Your task to perform on an android device: check battery use Image 0: 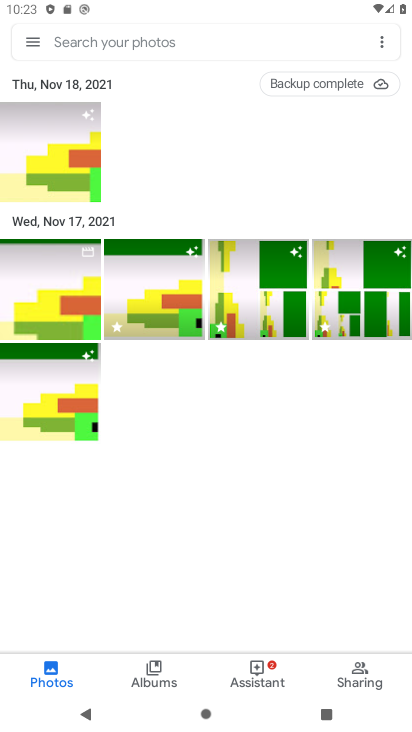
Step 0: press home button
Your task to perform on an android device: check battery use Image 1: 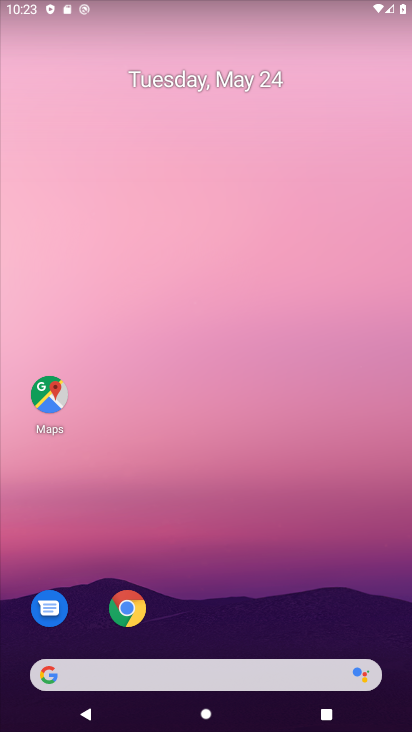
Step 1: drag from (382, 633) to (334, 42)
Your task to perform on an android device: check battery use Image 2: 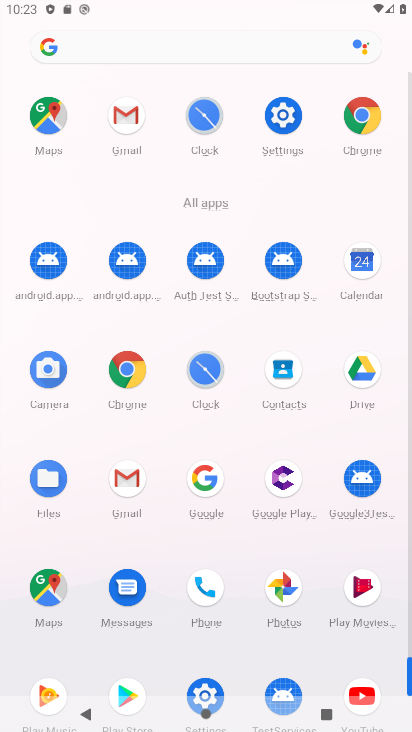
Step 2: click (410, 648)
Your task to perform on an android device: check battery use Image 3: 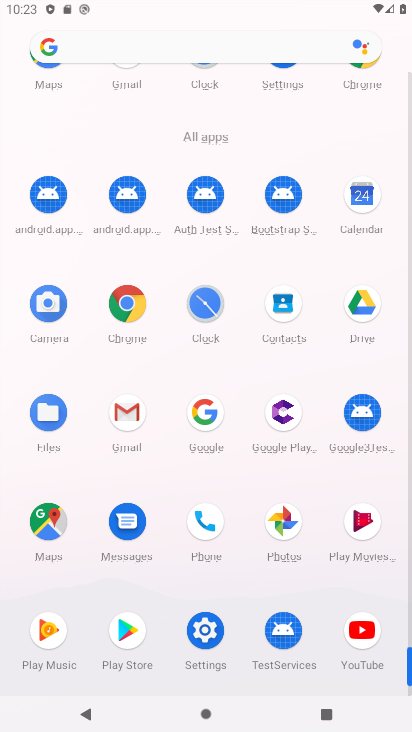
Step 3: click (201, 630)
Your task to perform on an android device: check battery use Image 4: 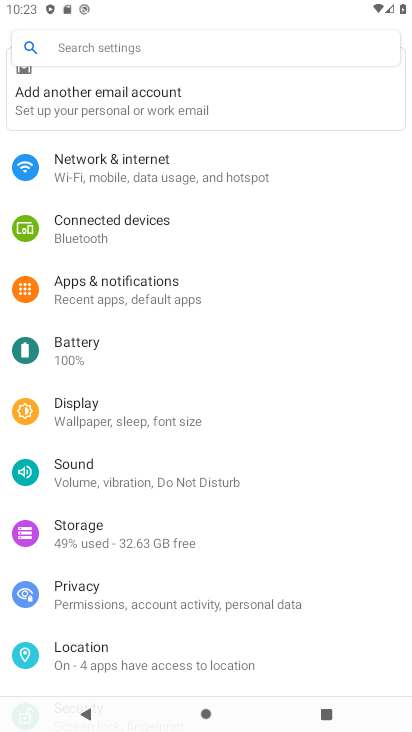
Step 4: click (70, 348)
Your task to perform on an android device: check battery use Image 5: 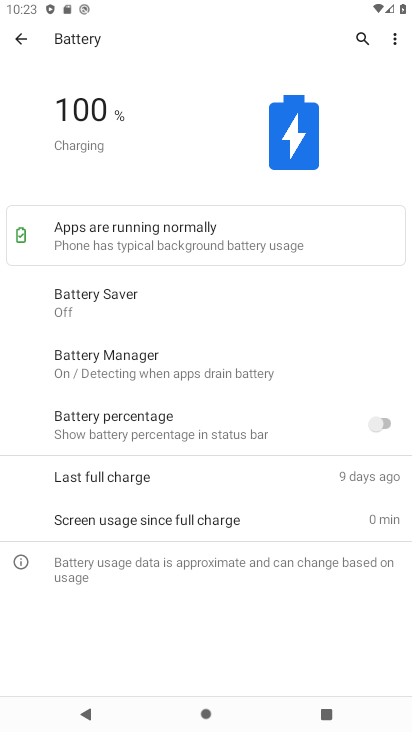
Step 5: click (393, 42)
Your task to perform on an android device: check battery use Image 6: 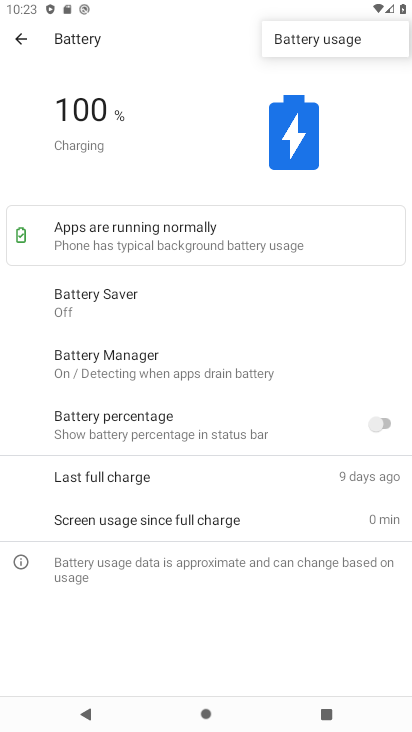
Step 6: click (311, 37)
Your task to perform on an android device: check battery use Image 7: 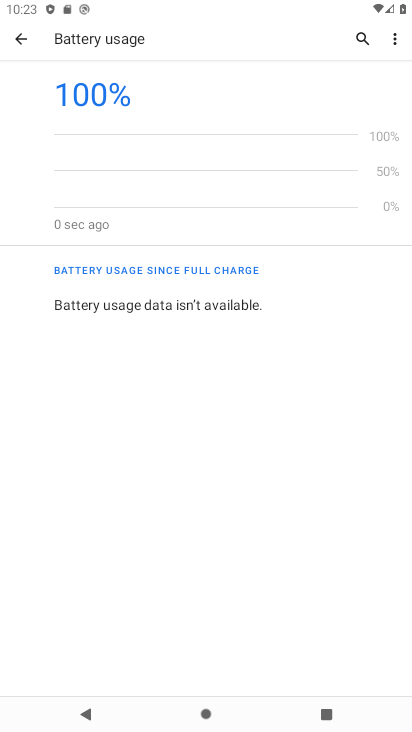
Step 7: task complete